Your task to perform on an android device: clear history in the chrome app Image 0: 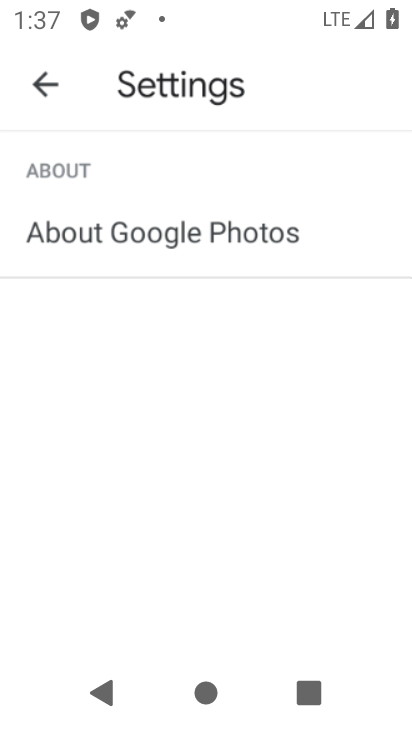
Step 0: press home button
Your task to perform on an android device: clear history in the chrome app Image 1: 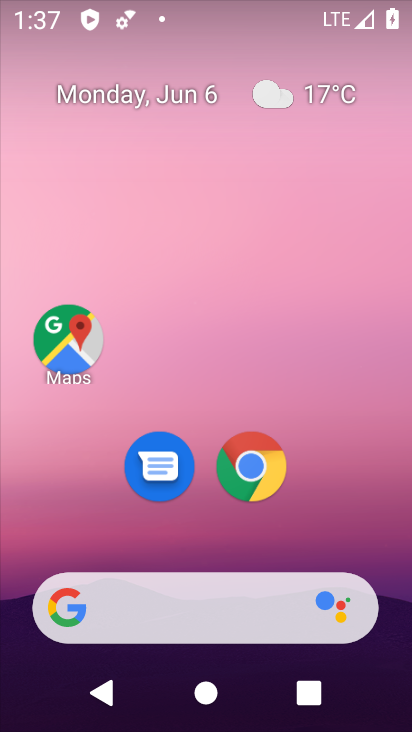
Step 1: click (252, 462)
Your task to perform on an android device: clear history in the chrome app Image 2: 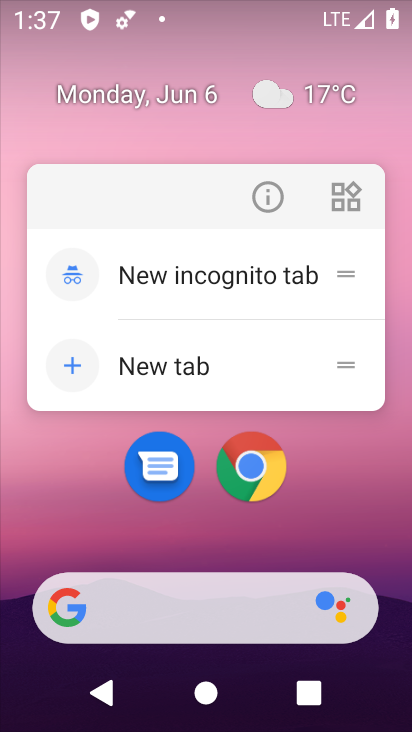
Step 2: click (261, 465)
Your task to perform on an android device: clear history in the chrome app Image 3: 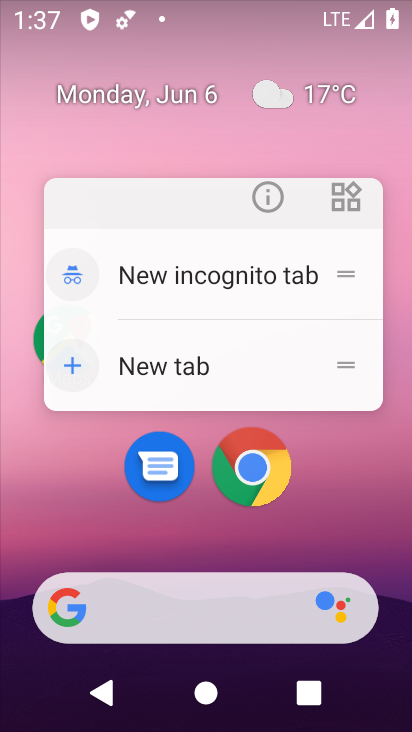
Step 3: click (262, 465)
Your task to perform on an android device: clear history in the chrome app Image 4: 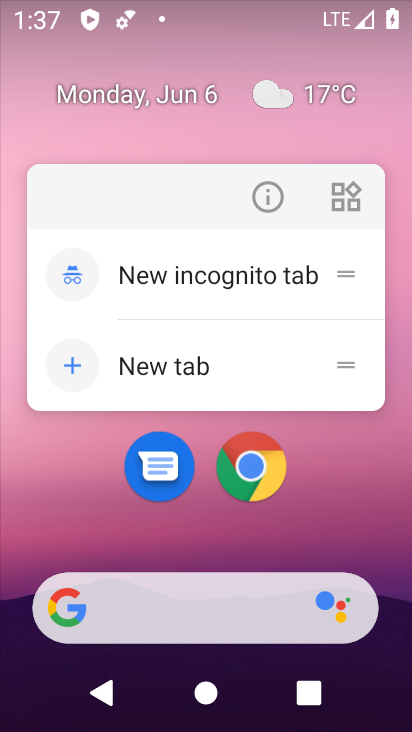
Step 4: click (373, 478)
Your task to perform on an android device: clear history in the chrome app Image 5: 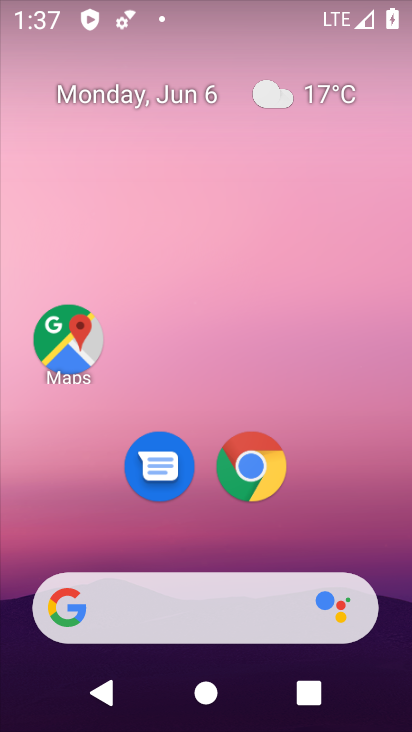
Step 5: drag from (314, 545) to (276, 17)
Your task to perform on an android device: clear history in the chrome app Image 6: 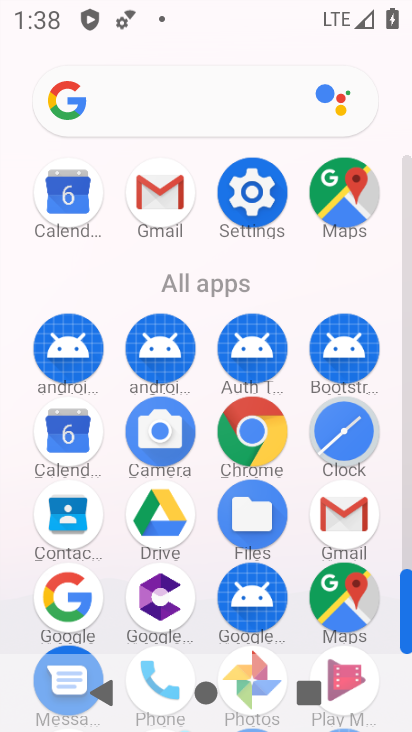
Step 6: click (257, 434)
Your task to perform on an android device: clear history in the chrome app Image 7: 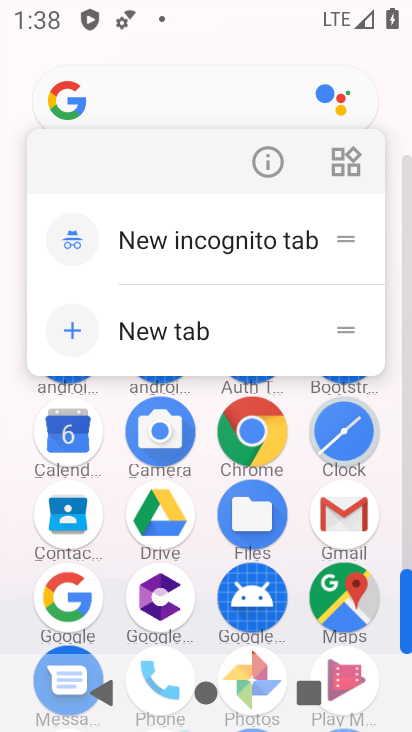
Step 7: click (255, 431)
Your task to perform on an android device: clear history in the chrome app Image 8: 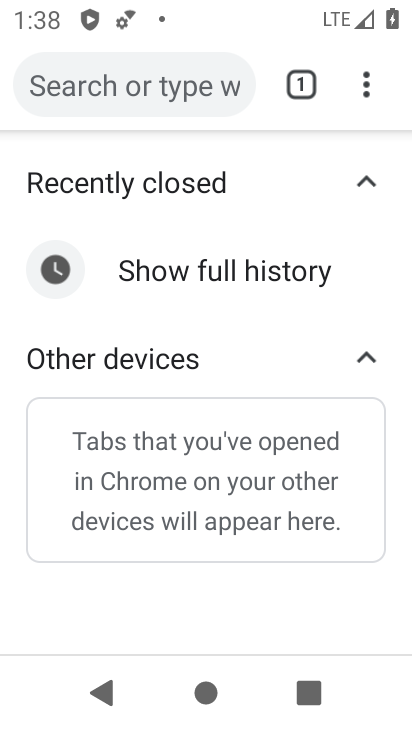
Step 8: task complete